Your task to perform on an android device: Add razer blade to the cart on bestbuy, then select checkout. Image 0: 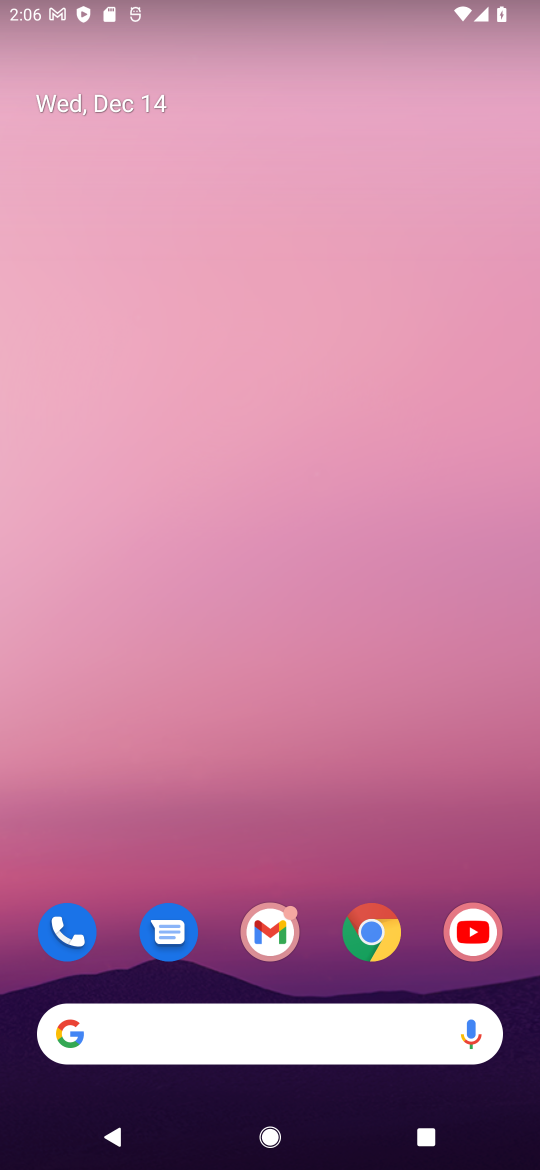
Step 0: drag from (175, 1033) to (193, 426)
Your task to perform on an android device: Add razer blade to the cart on bestbuy, then select checkout. Image 1: 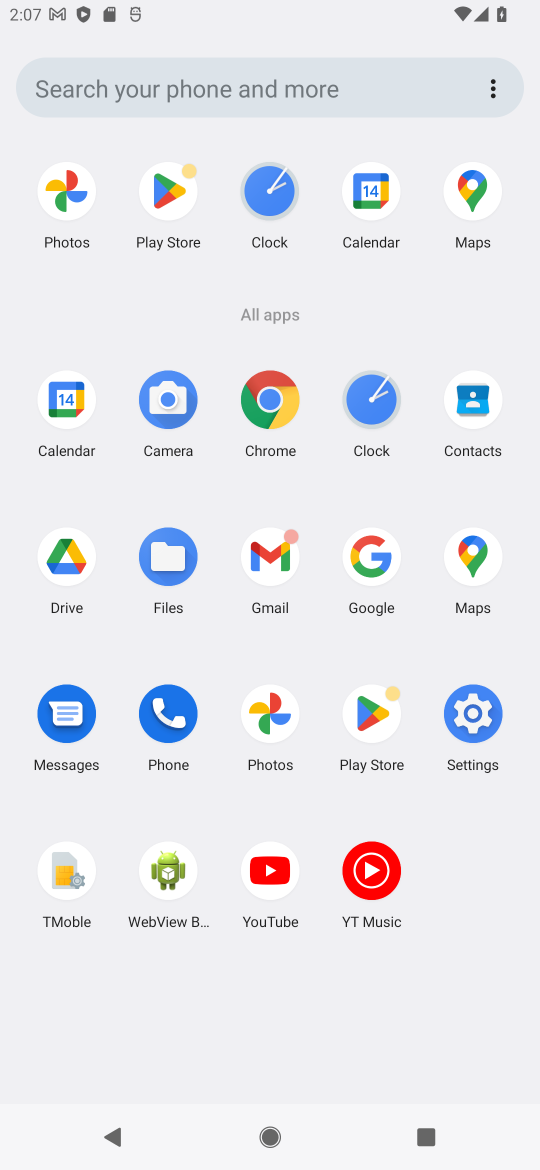
Step 1: press home button
Your task to perform on an android device: Add razer blade to the cart on bestbuy, then select checkout. Image 2: 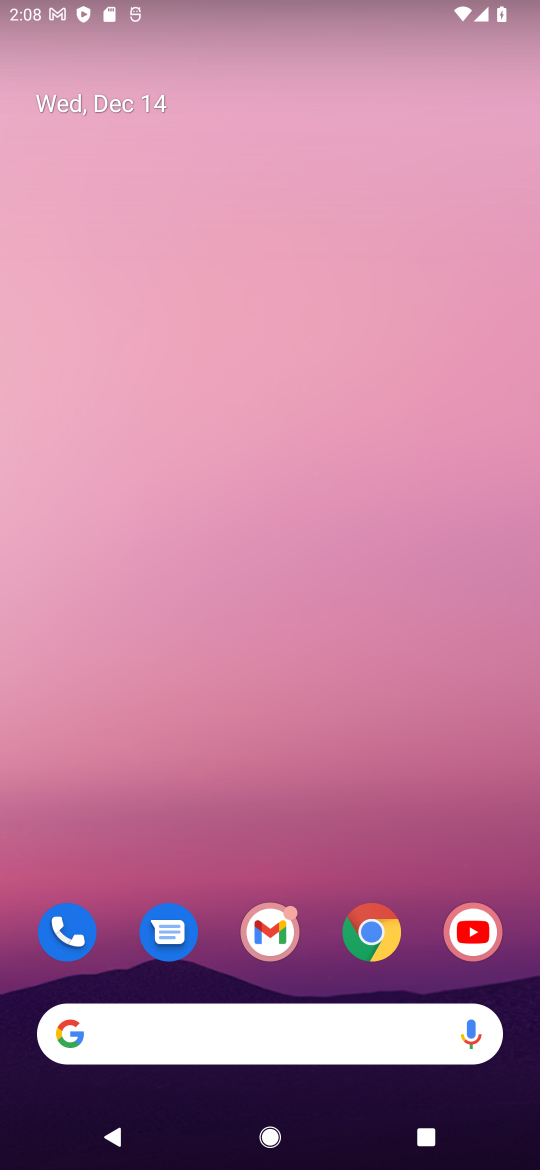
Step 2: click (293, 1024)
Your task to perform on an android device: Add razer blade to the cart on bestbuy, then select checkout. Image 3: 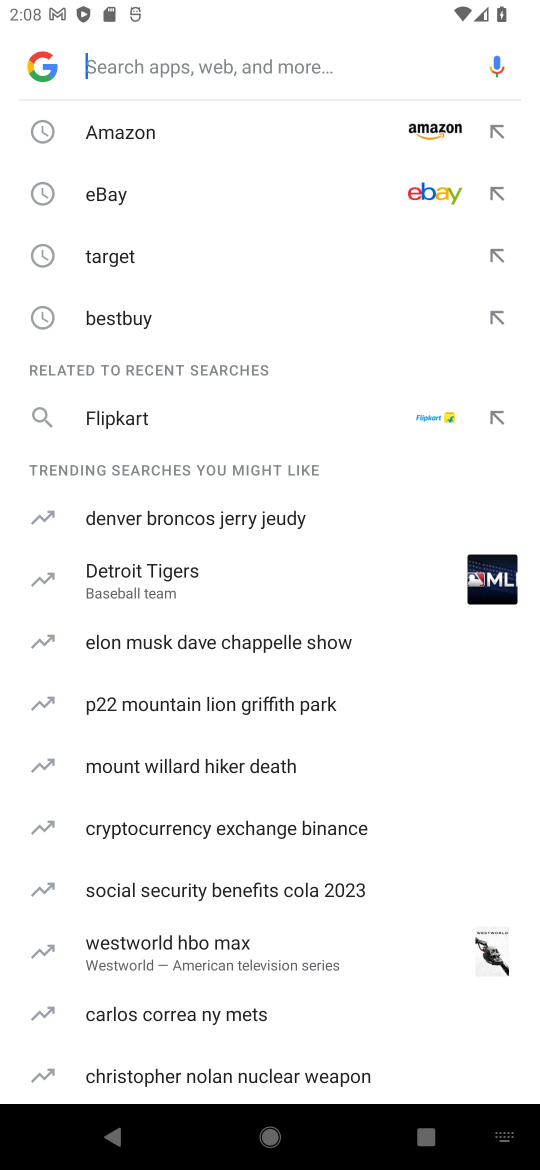
Step 3: click (129, 316)
Your task to perform on an android device: Add razer blade to the cart on bestbuy, then select checkout. Image 4: 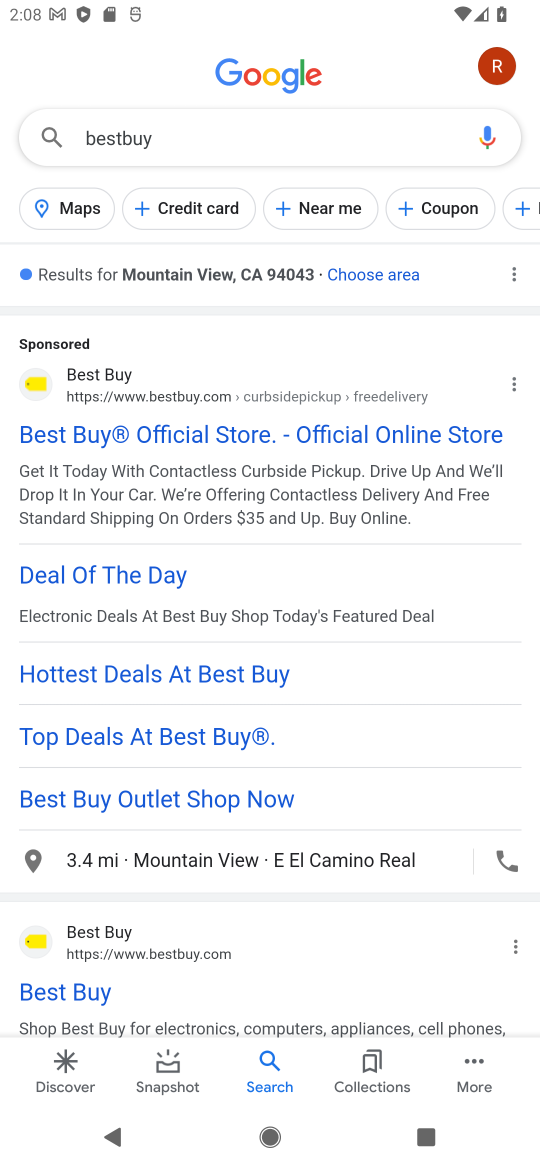
Step 4: click (72, 939)
Your task to perform on an android device: Add razer blade to the cart on bestbuy, then select checkout. Image 5: 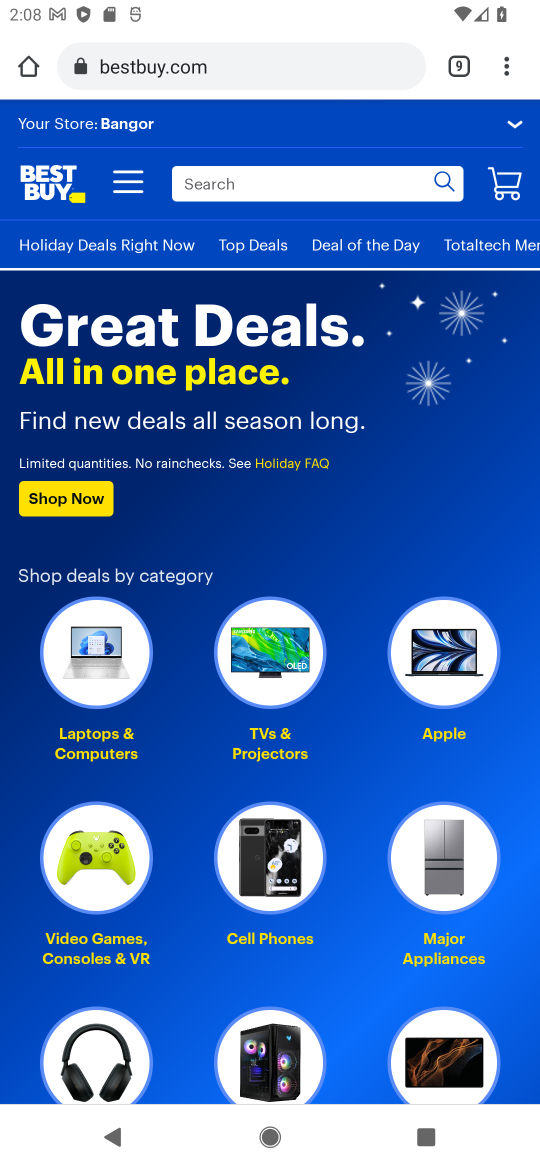
Step 5: click (280, 195)
Your task to perform on an android device: Add razer blade to the cart on bestbuy, then select checkout. Image 6: 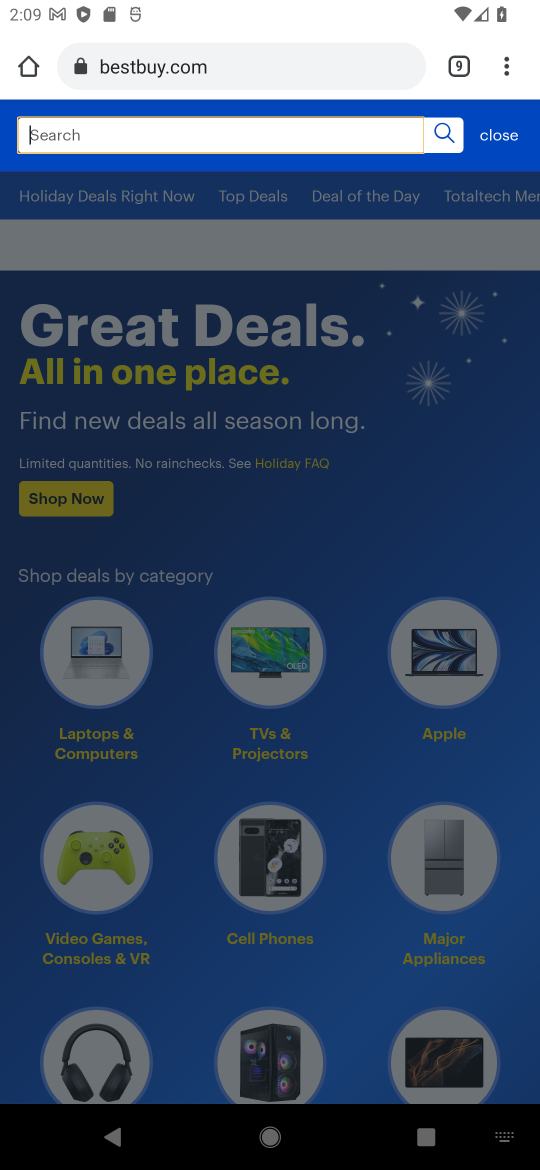
Step 6: type "razer blade "
Your task to perform on an android device: Add razer blade to the cart on bestbuy, then select checkout. Image 7: 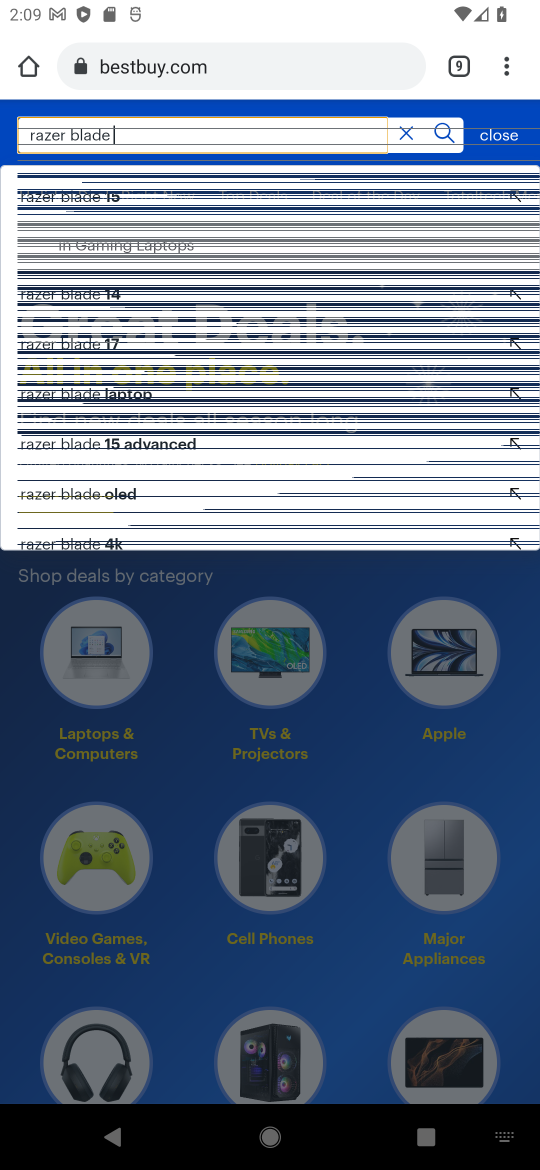
Step 7: click (440, 131)
Your task to perform on an android device: Add razer blade to the cart on bestbuy, then select checkout. Image 8: 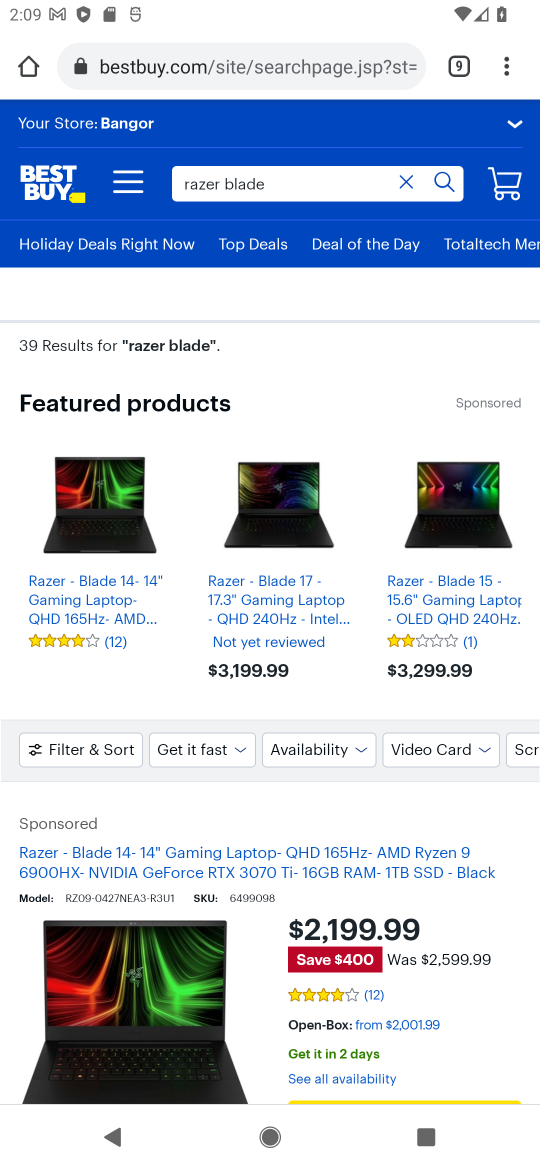
Step 8: drag from (416, 880) to (420, 738)
Your task to perform on an android device: Add razer blade to the cart on bestbuy, then select checkout. Image 9: 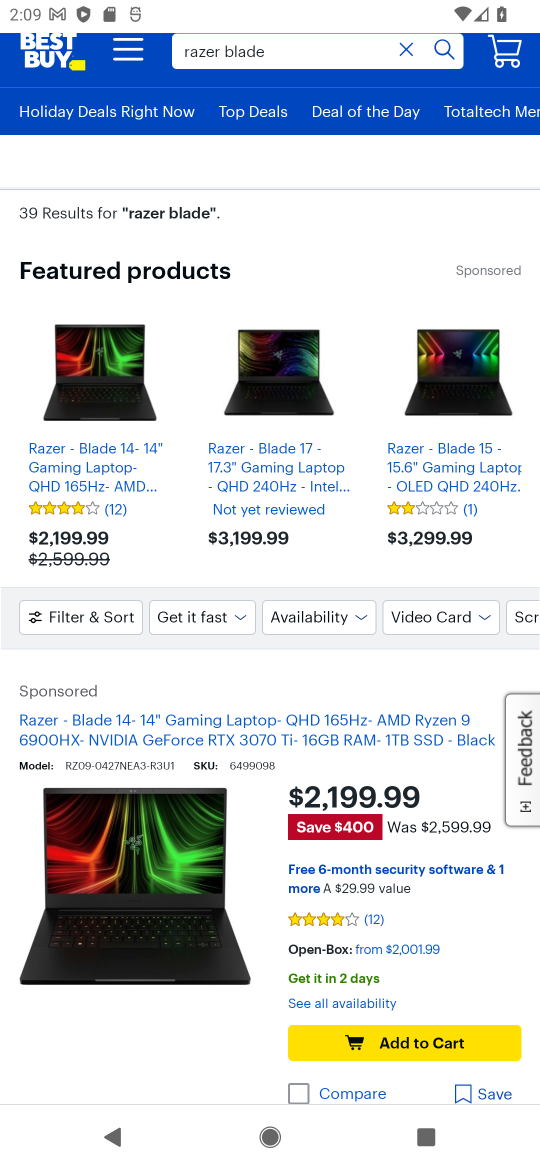
Step 9: click (399, 985)
Your task to perform on an android device: Add razer blade to the cart on bestbuy, then select checkout. Image 10: 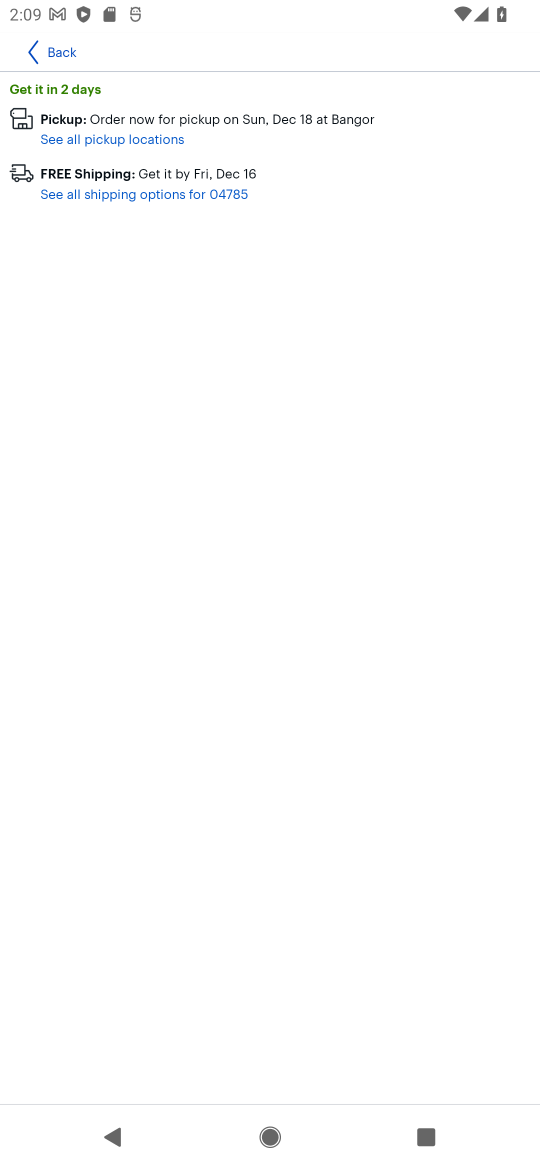
Step 10: click (64, 41)
Your task to perform on an android device: Add razer blade to the cart on bestbuy, then select checkout. Image 11: 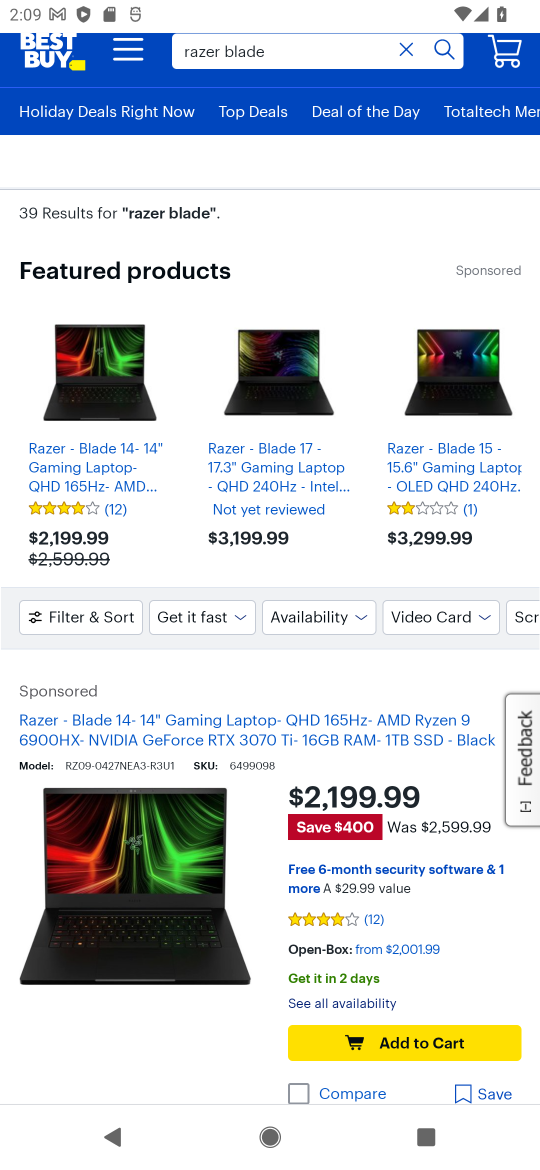
Step 11: click (421, 1039)
Your task to perform on an android device: Add razer blade to the cart on bestbuy, then select checkout. Image 12: 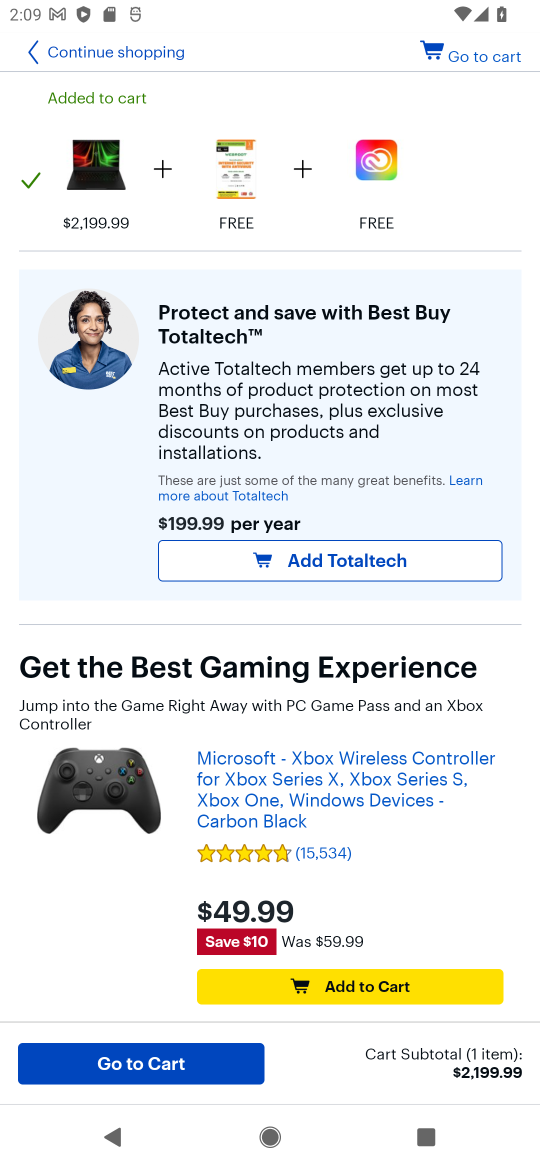
Step 12: click (153, 1061)
Your task to perform on an android device: Add razer blade to the cart on bestbuy, then select checkout. Image 13: 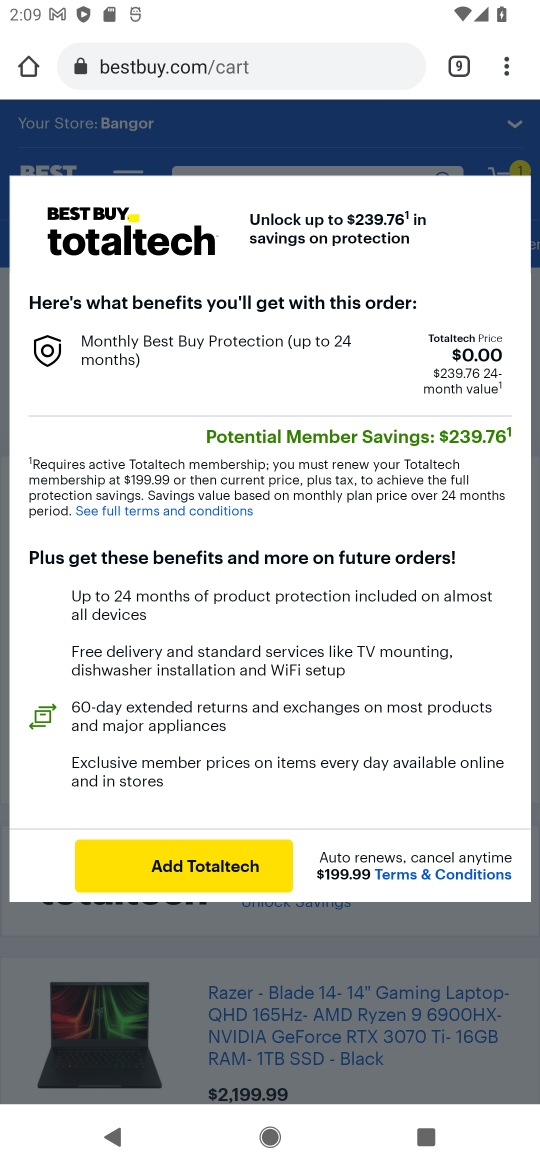
Step 13: click (273, 747)
Your task to perform on an android device: Add razer blade to the cart on bestbuy, then select checkout. Image 14: 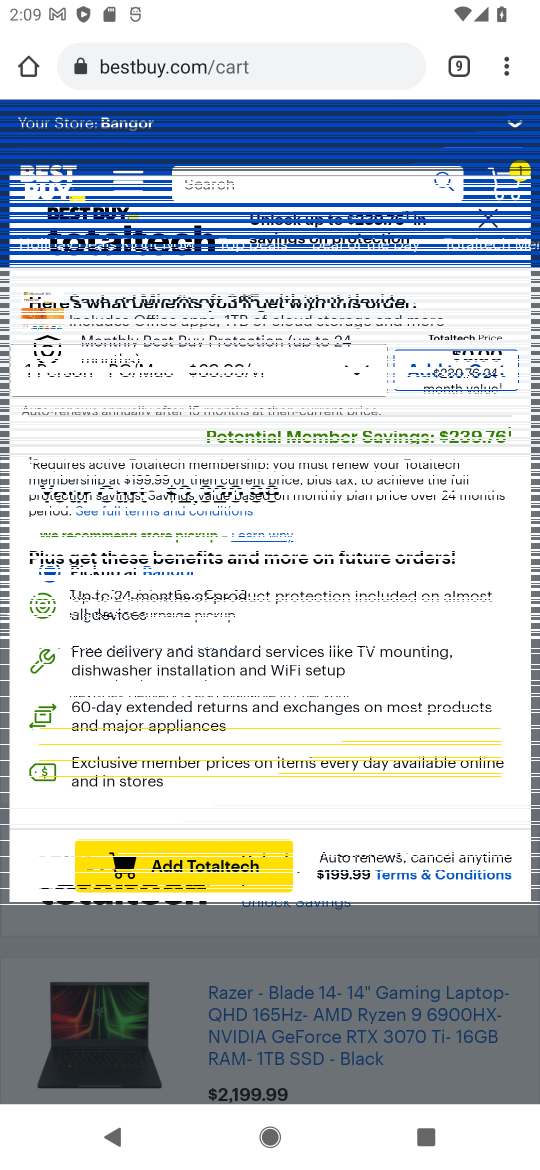
Step 14: click (484, 226)
Your task to perform on an android device: Add razer blade to the cart on bestbuy, then select checkout. Image 15: 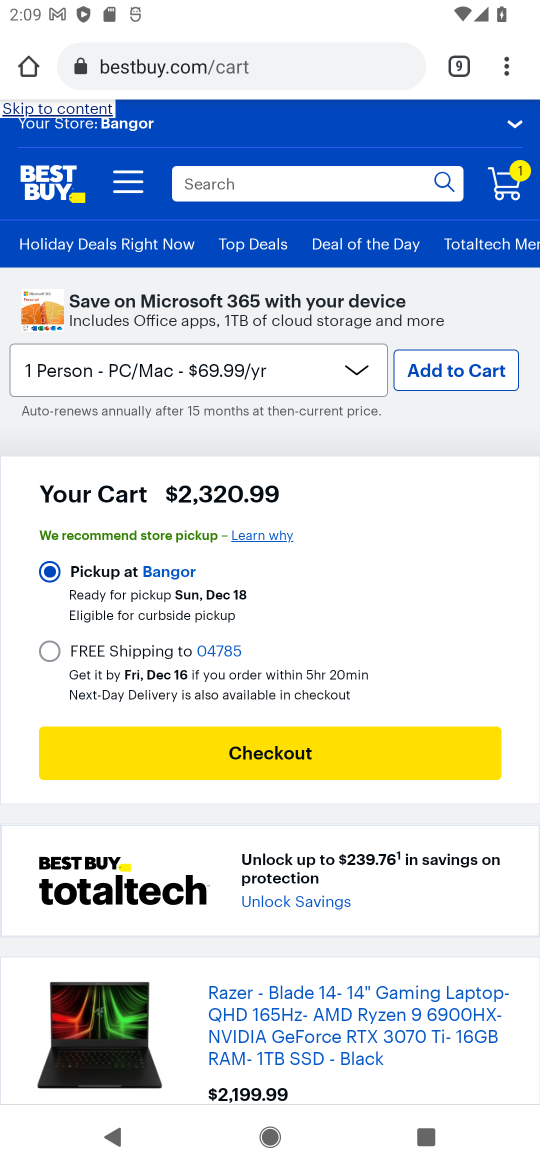
Step 15: click (269, 747)
Your task to perform on an android device: Add razer blade to the cart on bestbuy, then select checkout. Image 16: 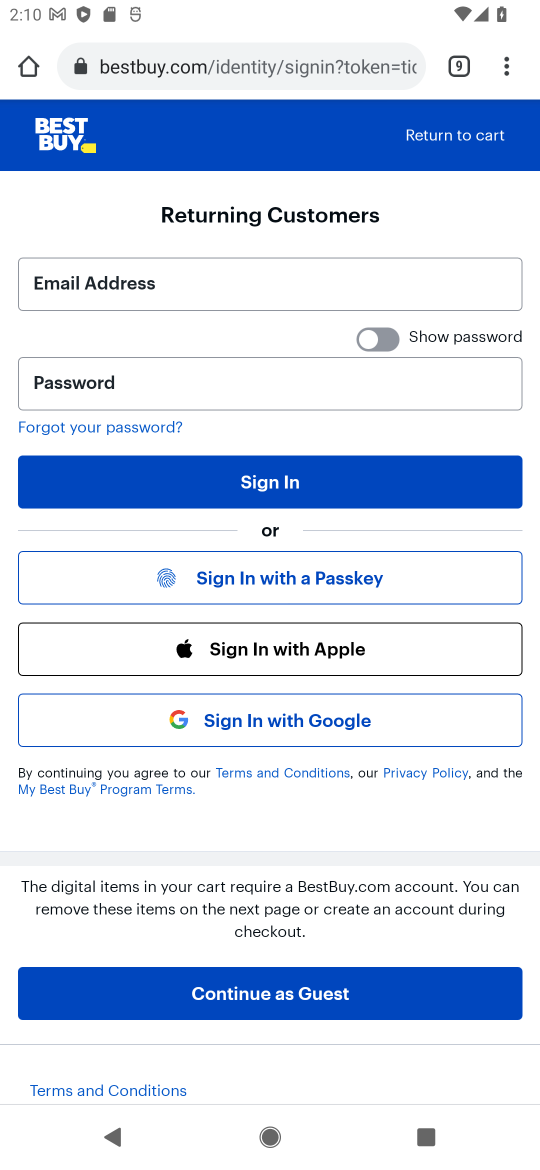
Step 16: task complete